Your task to perform on an android device: Open location settings Image 0: 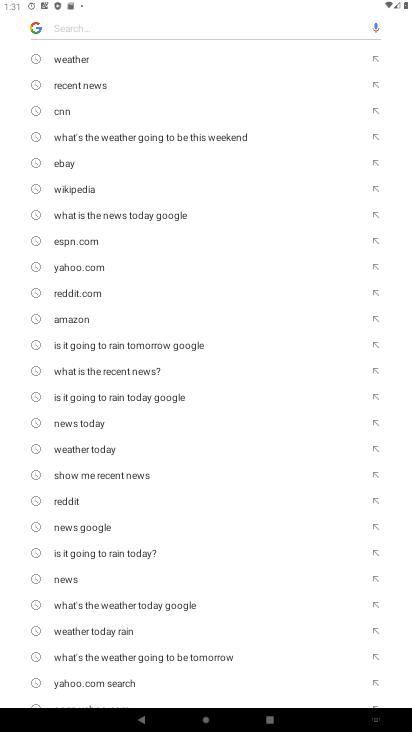
Step 0: press home button
Your task to perform on an android device: Open location settings Image 1: 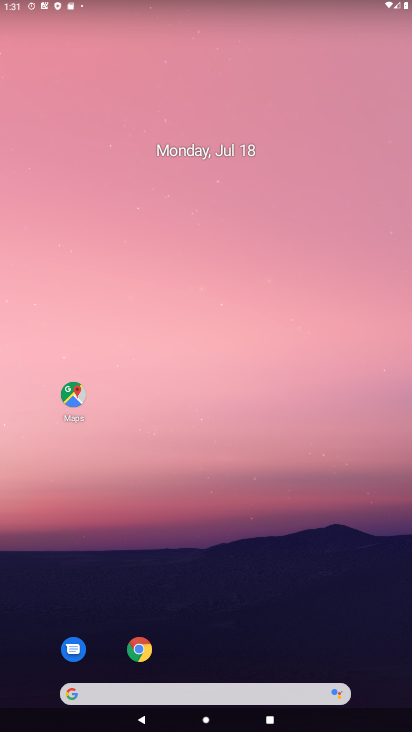
Step 1: drag from (201, 676) to (150, 60)
Your task to perform on an android device: Open location settings Image 2: 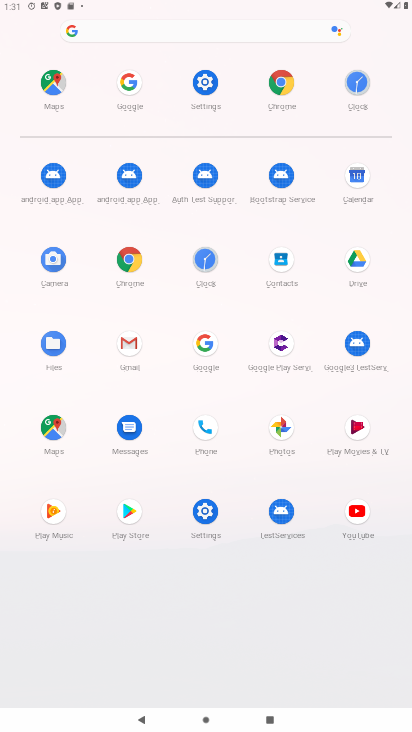
Step 2: click (206, 95)
Your task to perform on an android device: Open location settings Image 3: 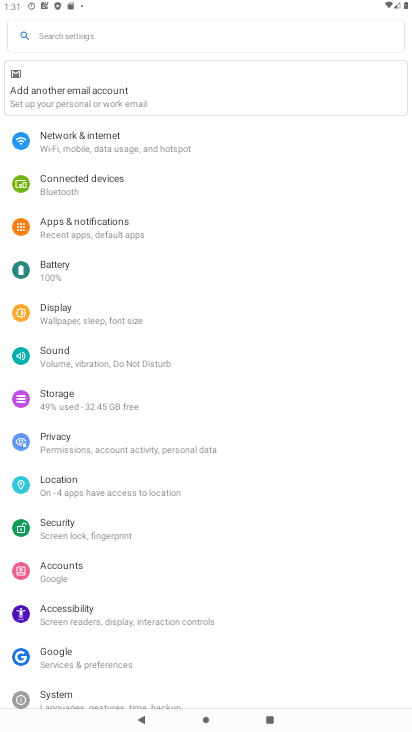
Step 3: click (73, 492)
Your task to perform on an android device: Open location settings Image 4: 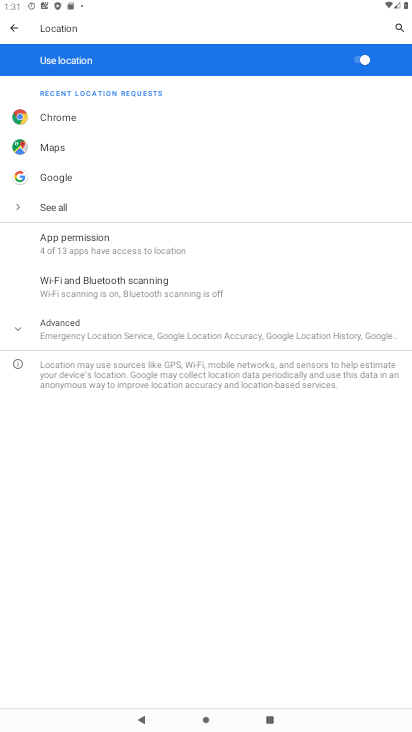
Step 4: click (73, 313)
Your task to perform on an android device: Open location settings Image 5: 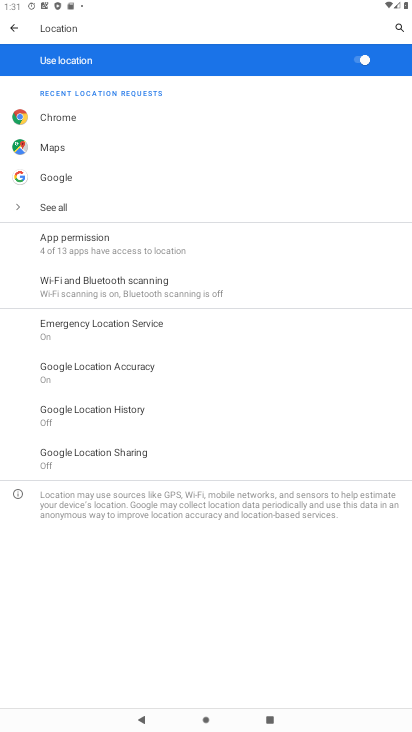
Step 5: task complete